Your task to perform on an android device: open the mobile data screen to see how much data has been used Image 0: 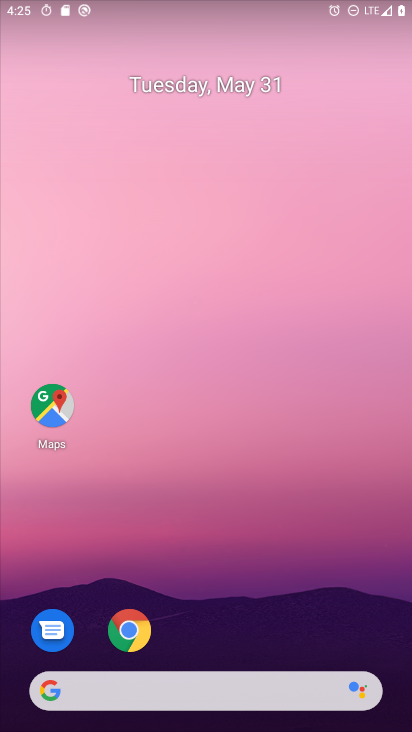
Step 0: drag from (279, 708) to (312, 8)
Your task to perform on an android device: open the mobile data screen to see how much data has been used Image 1: 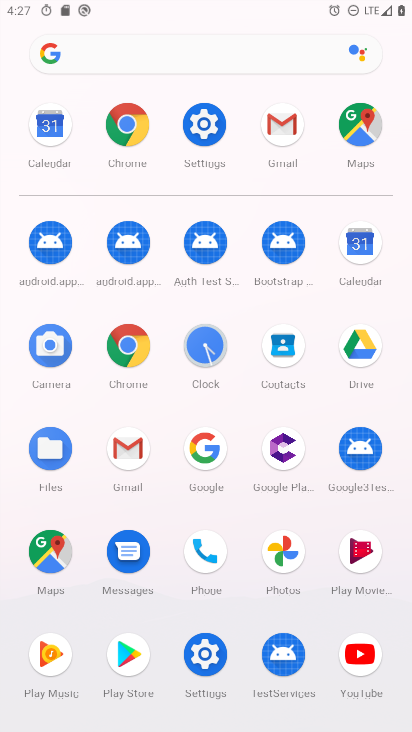
Step 1: click (198, 115)
Your task to perform on an android device: open the mobile data screen to see how much data has been used Image 2: 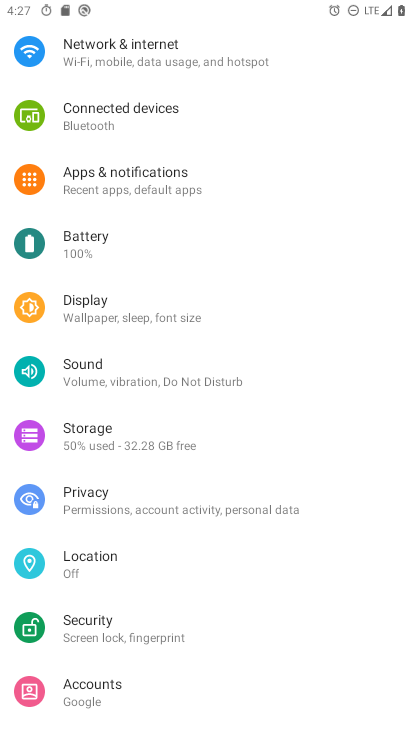
Step 2: drag from (245, 308) to (235, 696)
Your task to perform on an android device: open the mobile data screen to see how much data has been used Image 3: 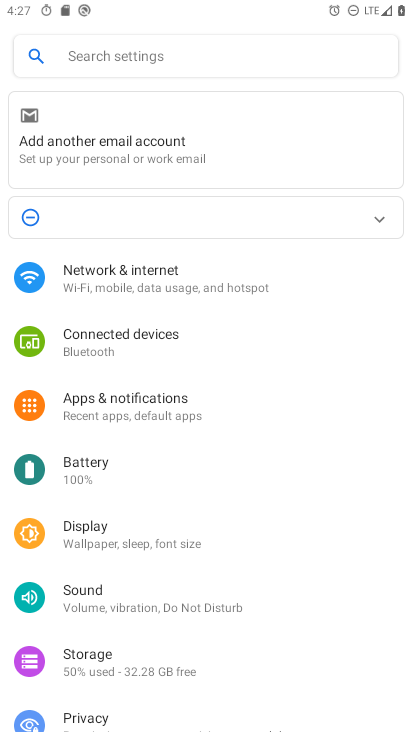
Step 3: click (222, 269)
Your task to perform on an android device: open the mobile data screen to see how much data has been used Image 4: 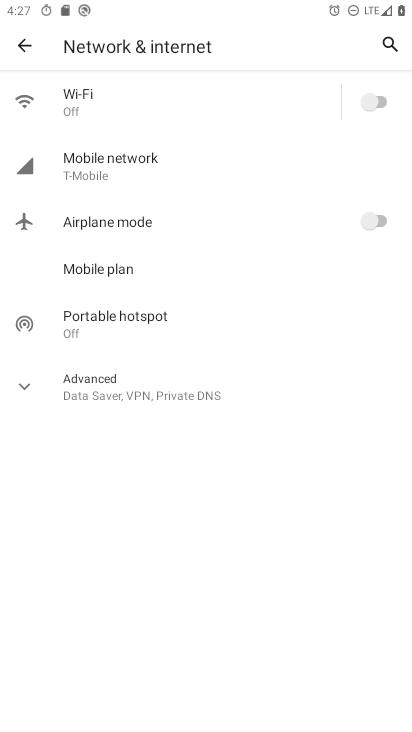
Step 4: click (130, 161)
Your task to perform on an android device: open the mobile data screen to see how much data has been used Image 5: 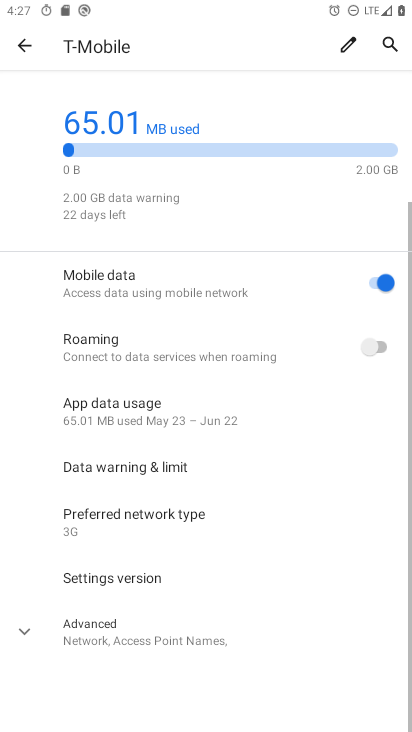
Step 5: task complete